Your task to perform on an android device: turn smart compose on in the gmail app Image 0: 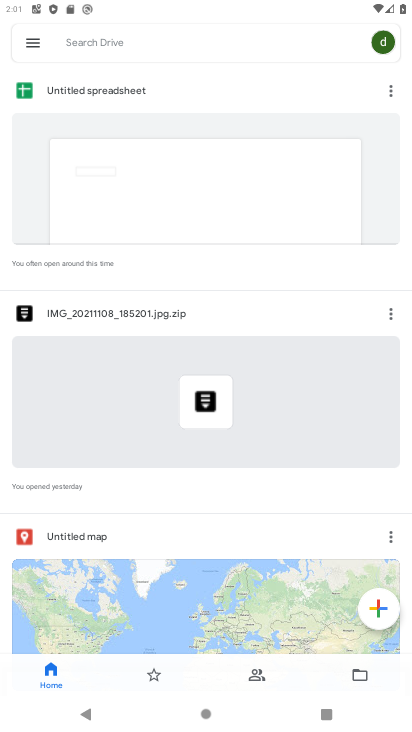
Step 0: press home button
Your task to perform on an android device: turn smart compose on in the gmail app Image 1: 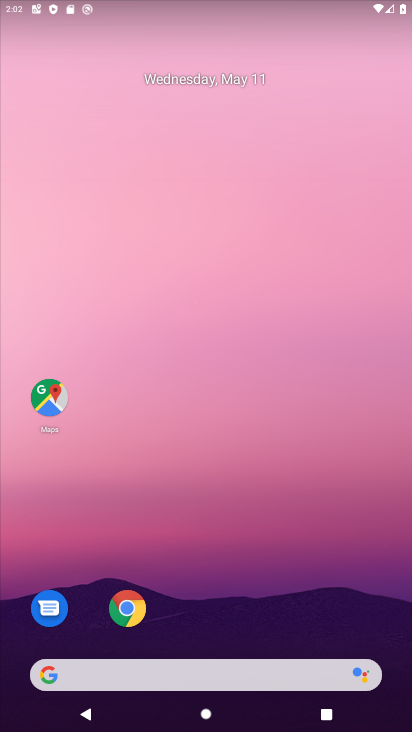
Step 1: drag from (238, 513) to (164, 58)
Your task to perform on an android device: turn smart compose on in the gmail app Image 2: 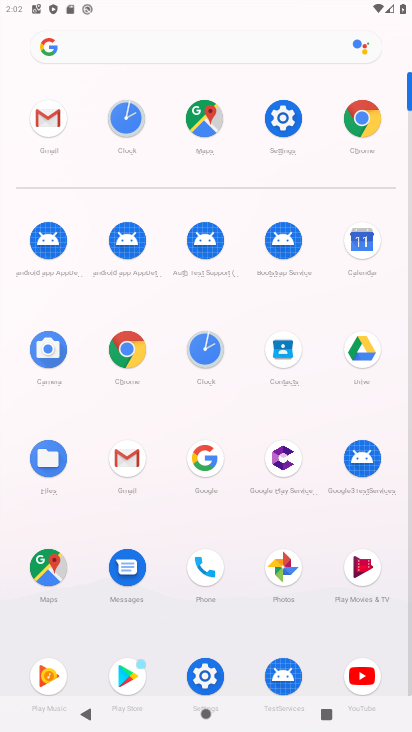
Step 2: click (128, 474)
Your task to perform on an android device: turn smart compose on in the gmail app Image 3: 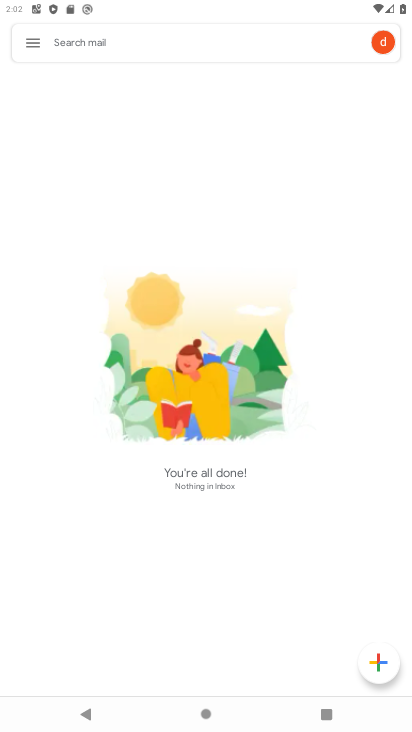
Step 3: click (32, 46)
Your task to perform on an android device: turn smart compose on in the gmail app Image 4: 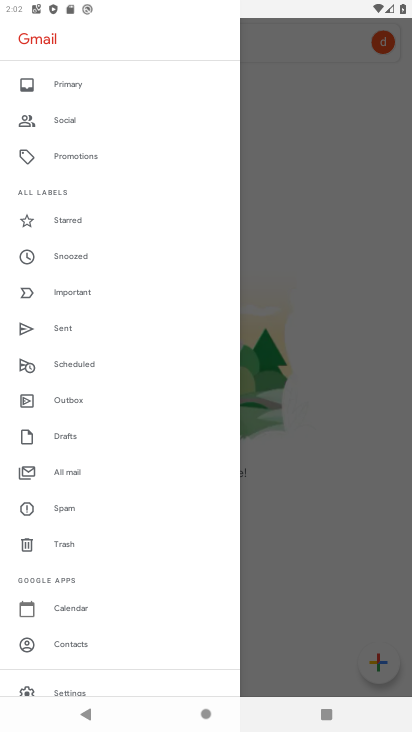
Step 4: drag from (156, 539) to (158, 102)
Your task to perform on an android device: turn smart compose on in the gmail app Image 5: 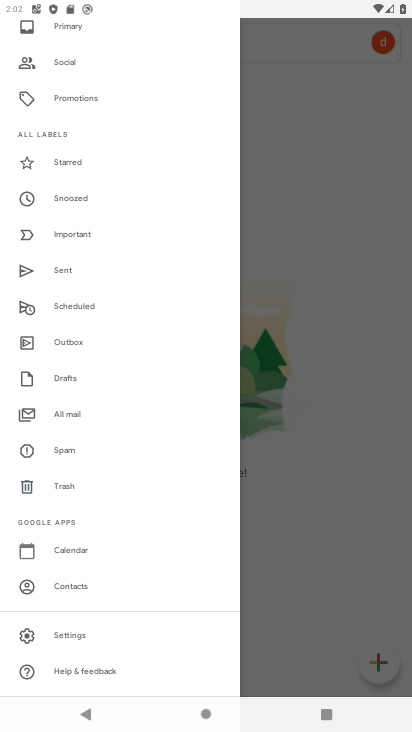
Step 5: click (51, 633)
Your task to perform on an android device: turn smart compose on in the gmail app Image 6: 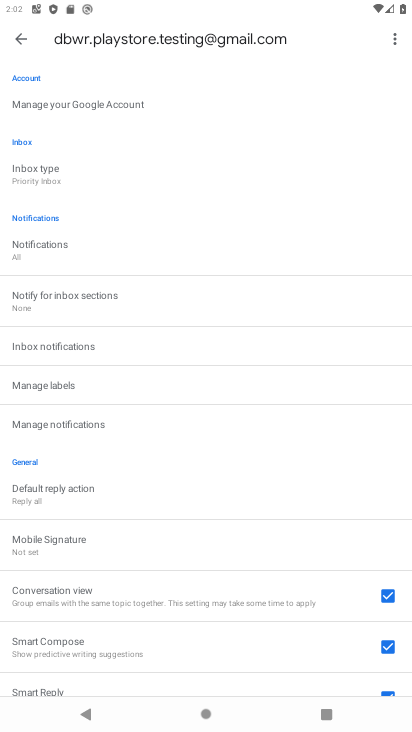
Step 6: drag from (246, 621) to (265, 274)
Your task to perform on an android device: turn smart compose on in the gmail app Image 7: 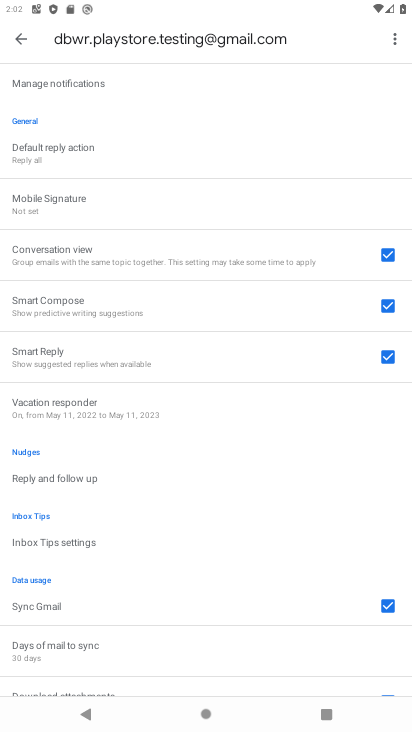
Step 7: drag from (240, 510) to (159, 47)
Your task to perform on an android device: turn smart compose on in the gmail app Image 8: 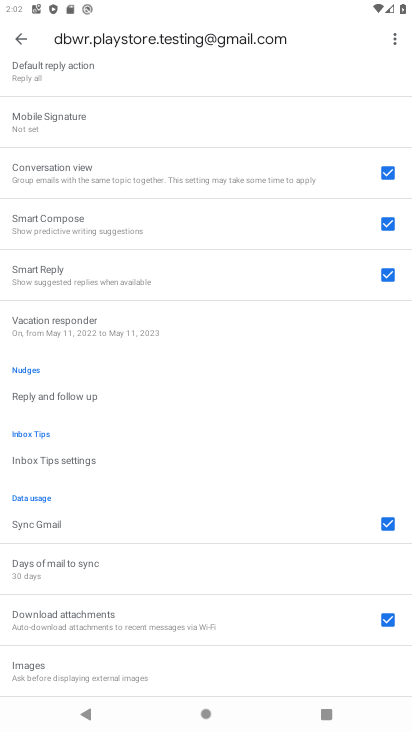
Step 8: drag from (272, 460) to (219, 1)
Your task to perform on an android device: turn smart compose on in the gmail app Image 9: 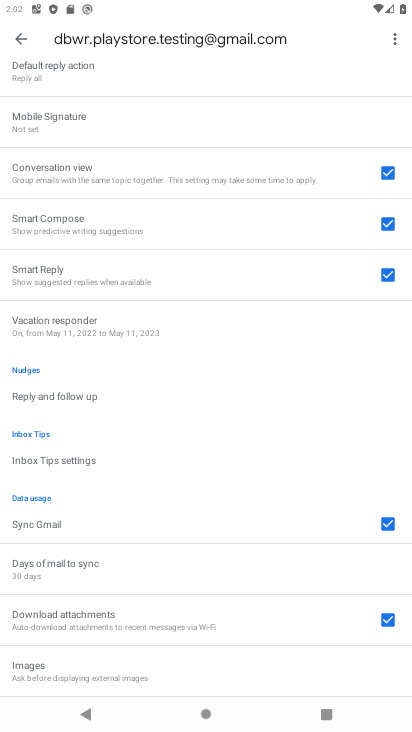
Step 9: drag from (245, 90) to (231, 710)
Your task to perform on an android device: turn smart compose on in the gmail app Image 10: 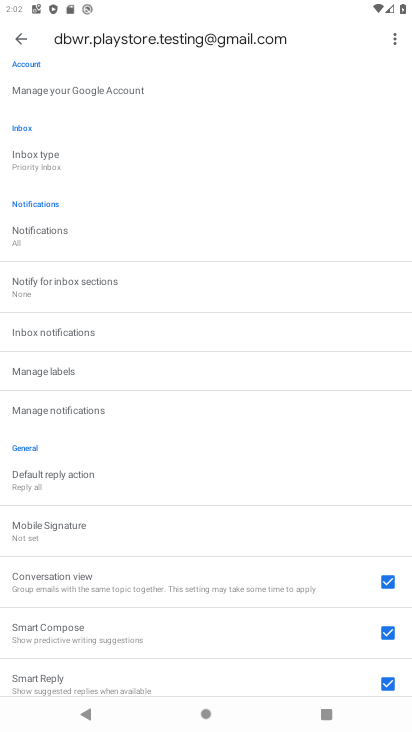
Step 10: click (18, 40)
Your task to perform on an android device: turn smart compose on in the gmail app Image 11: 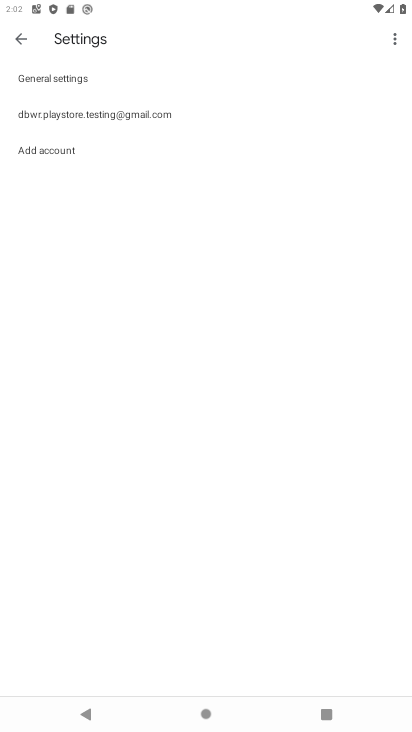
Step 11: click (19, 38)
Your task to perform on an android device: turn smart compose on in the gmail app Image 12: 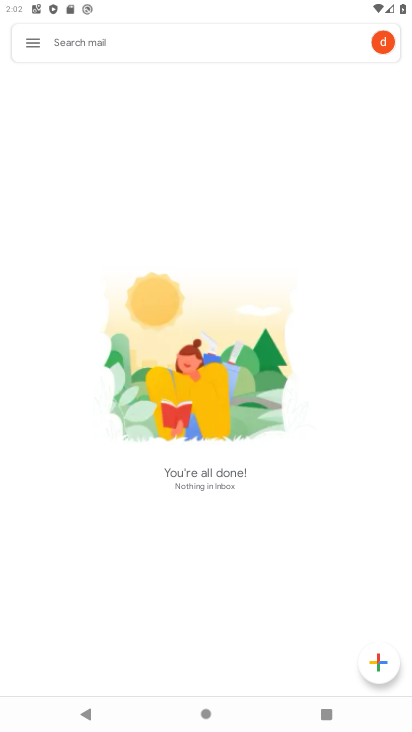
Step 12: task complete